Your task to perform on an android device: Is it going to rain today? Image 0: 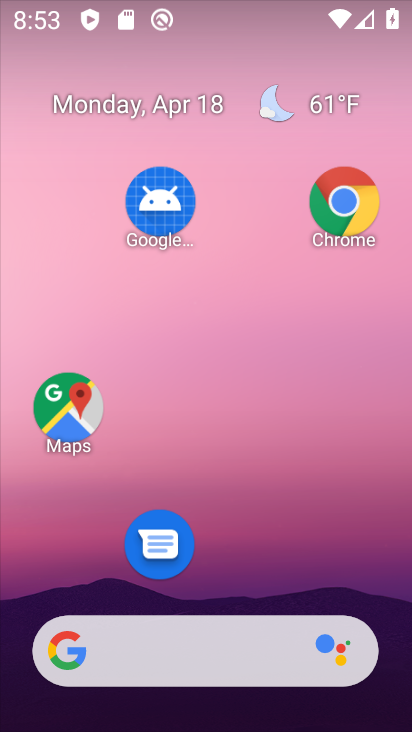
Step 0: click (206, 639)
Your task to perform on an android device: Is it going to rain today? Image 1: 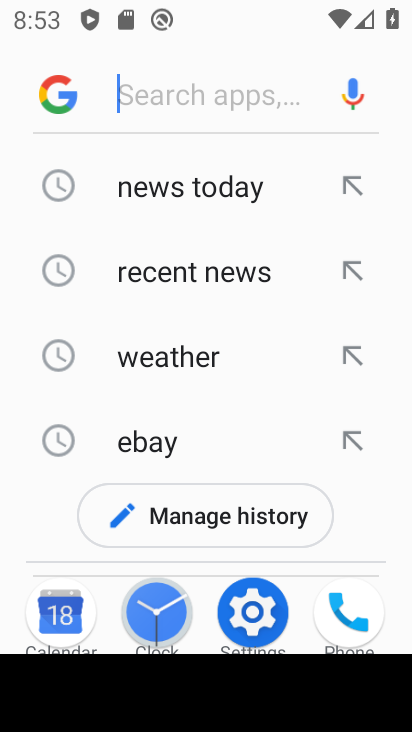
Step 1: click (167, 348)
Your task to perform on an android device: Is it going to rain today? Image 2: 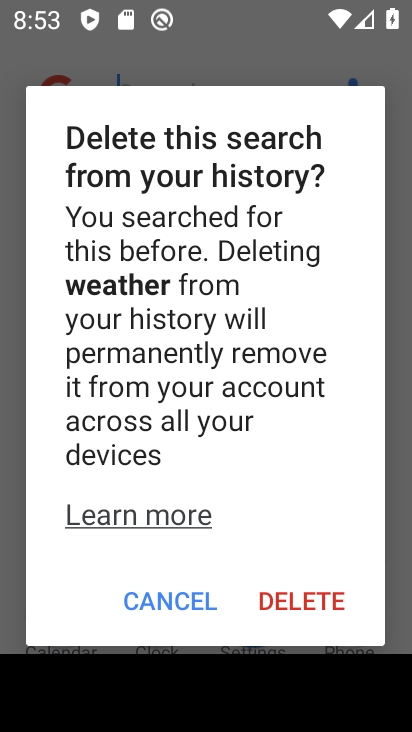
Step 2: click (208, 595)
Your task to perform on an android device: Is it going to rain today? Image 3: 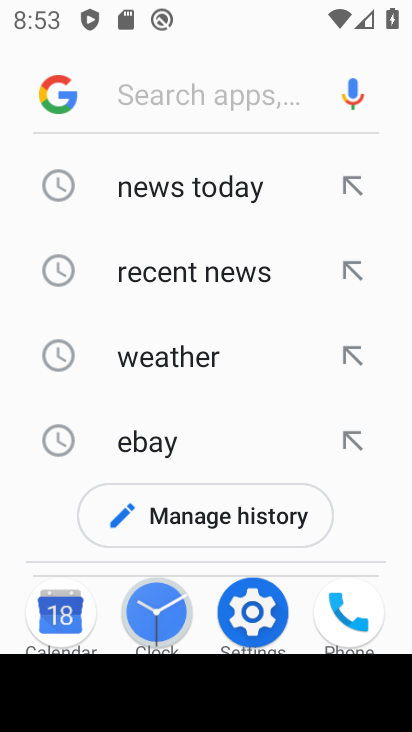
Step 3: click (45, 364)
Your task to perform on an android device: Is it going to rain today? Image 4: 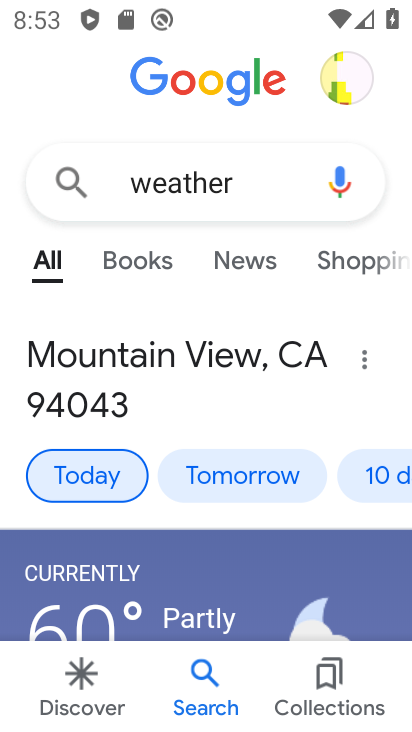
Step 4: task complete